Your task to perform on an android device: turn off airplane mode Image 0: 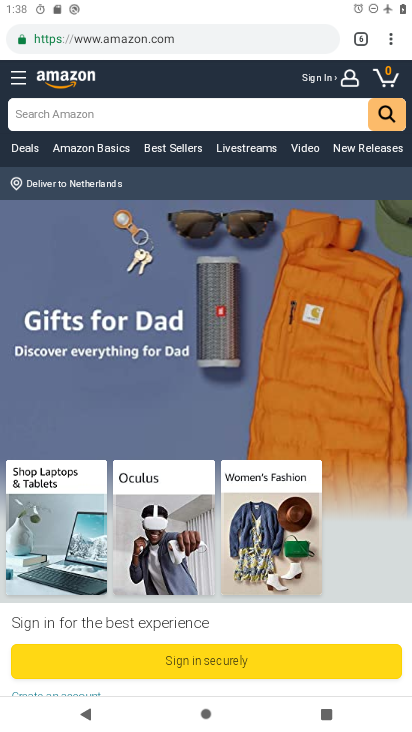
Step 0: press home button
Your task to perform on an android device: turn off airplane mode Image 1: 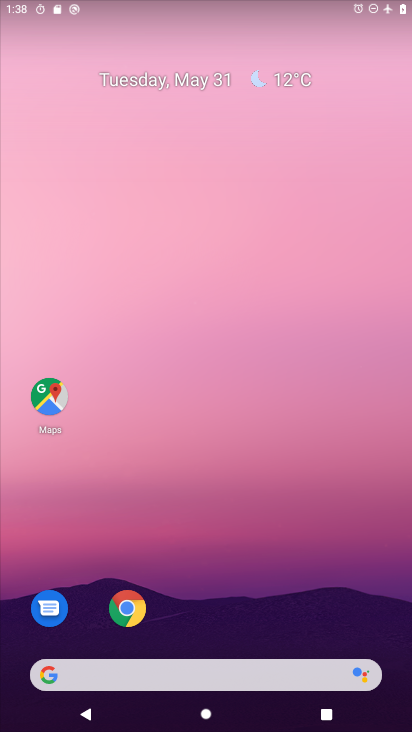
Step 1: drag from (231, 638) to (172, 6)
Your task to perform on an android device: turn off airplane mode Image 2: 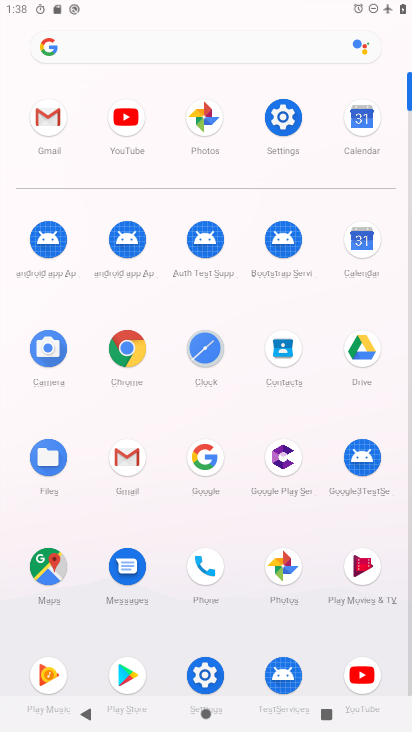
Step 2: click (278, 121)
Your task to perform on an android device: turn off airplane mode Image 3: 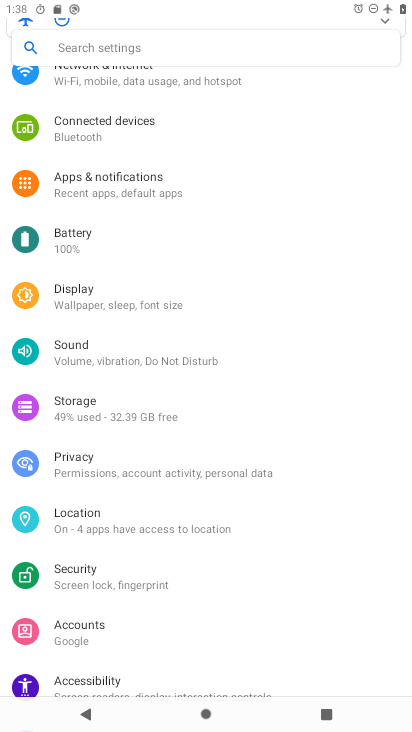
Step 3: click (95, 85)
Your task to perform on an android device: turn off airplane mode Image 4: 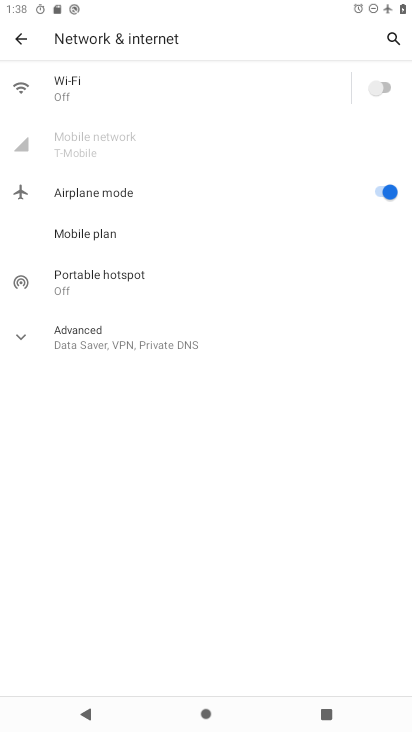
Step 4: click (384, 192)
Your task to perform on an android device: turn off airplane mode Image 5: 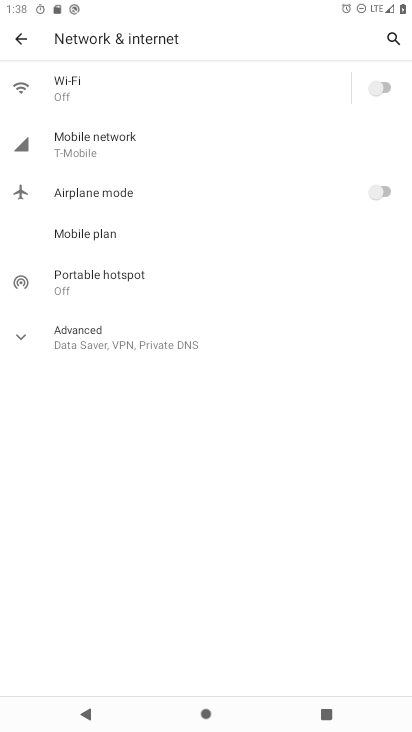
Step 5: task complete